Your task to perform on an android device: open app "Pinterest" Image 0: 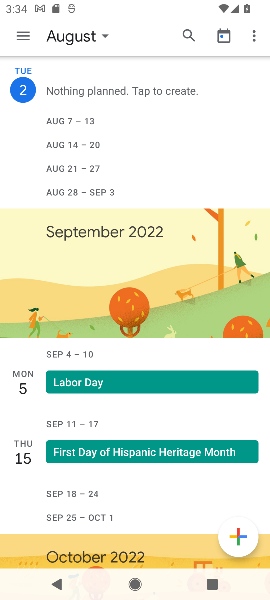
Step 0: press home button
Your task to perform on an android device: open app "Pinterest" Image 1: 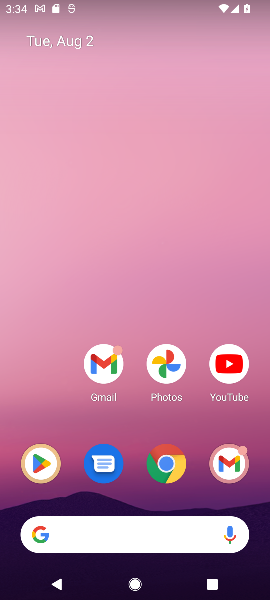
Step 1: click (47, 462)
Your task to perform on an android device: open app "Pinterest" Image 2: 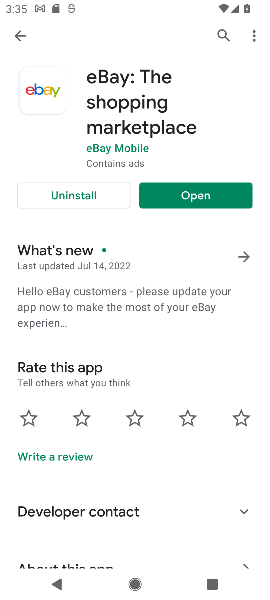
Step 2: click (218, 36)
Your task to perform on an android device: open app "Pinterest" Image 3: 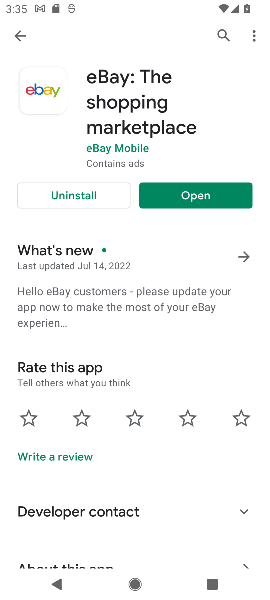
Step 3: click (221, 32)
Your task to perform on an android device: open app "Pinterest" Image 4: 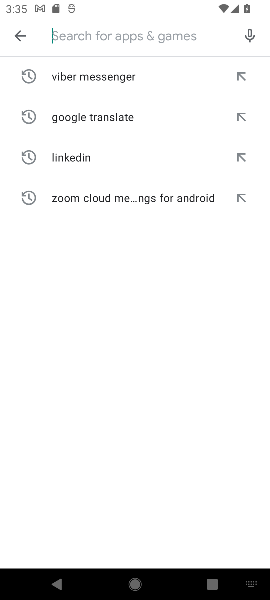
Step 4: type "Pinterest"
Your task to perform on an android device: open app "Pinterest" Image 5: 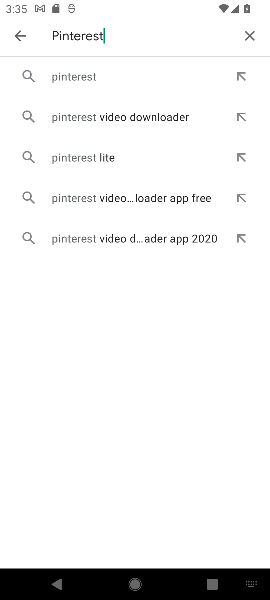
Step 5: click (46, 74)
Your task to perform on an android device: open app "Pinterest" Image 6: 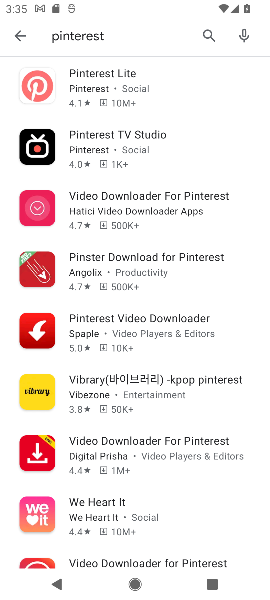
Step 6: click (124, 275)
Your task to perform on an android device: open app "Pinterest" Image 7: 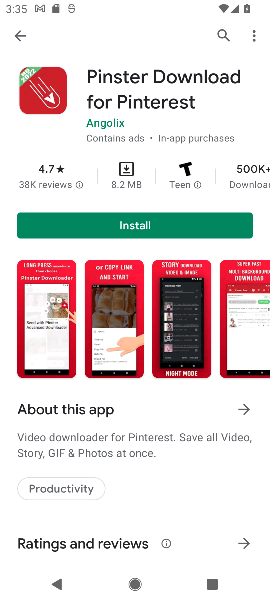
Step 7: task complete